Your task to perform on an android device: open chrome and create a bookmark for the current page Image 0: 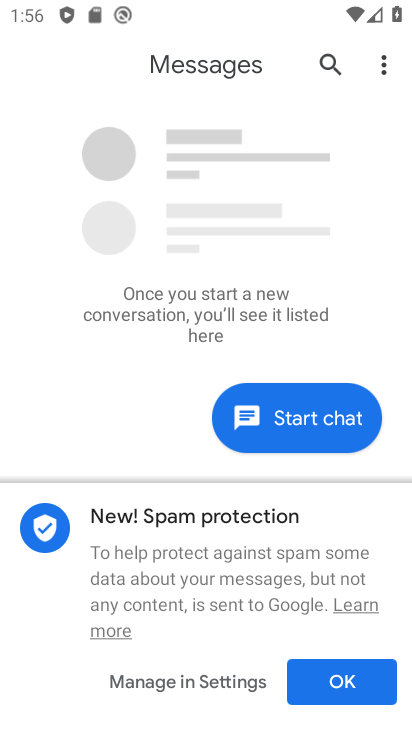
Step 0: drag from (341, 604) to (355, 186)
Your task to perform on an android device: open chrome and create a bookmark for the current page Image 1: 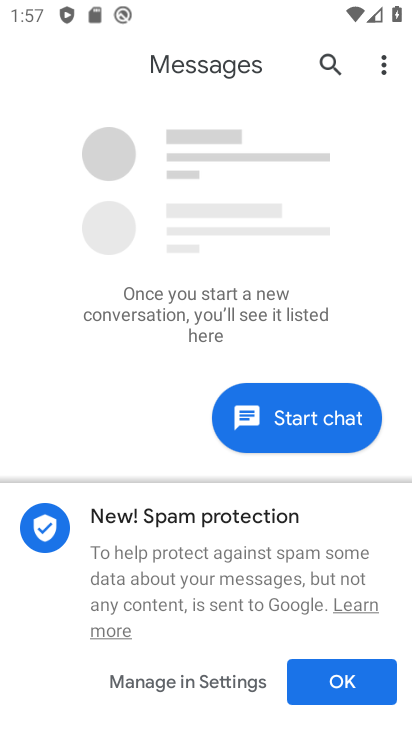
Step 1: press home button
Your task to perform on an android device: open chrome and create a bookmark for the current page Image 2: 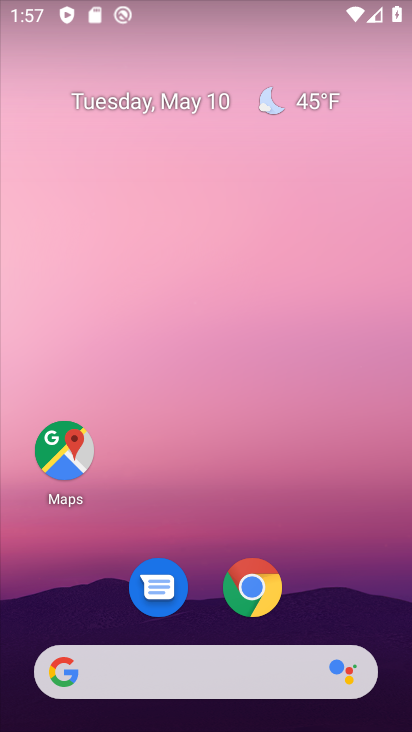
Step 2: drag from (331, 618) to (346, 129)
Your task to perform on an android device: open chrome and create a bookmark for the current page Image 3: 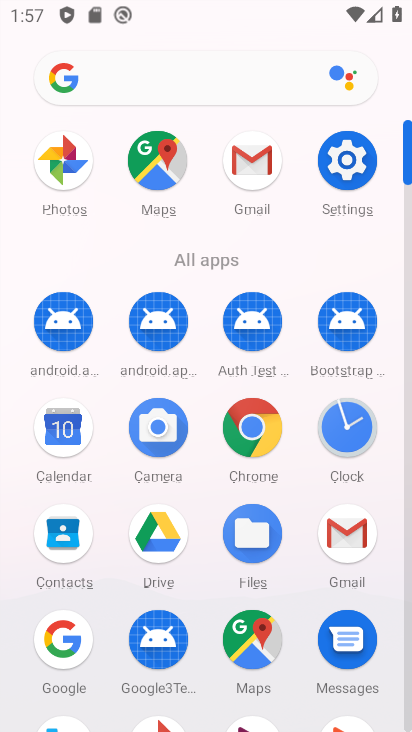
Step 3: click (264, 420)
Your task to perform on an android device: open chrome and create a bookmark for the current page Image 4: 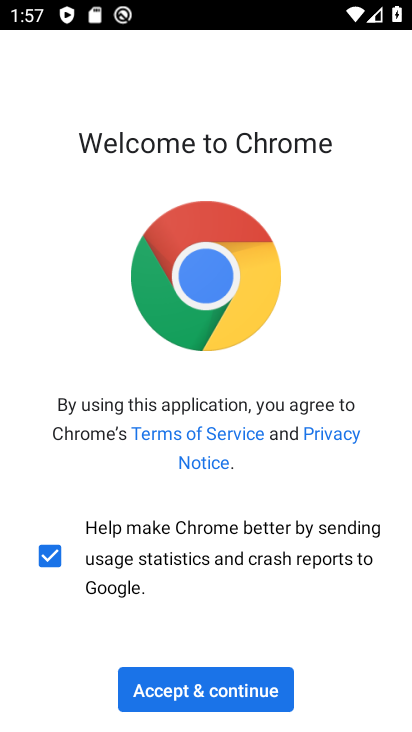
Step 4: click (232, 706)
Your task to perform on an android device: open chrome and create a bookmark for the current page Image 5: 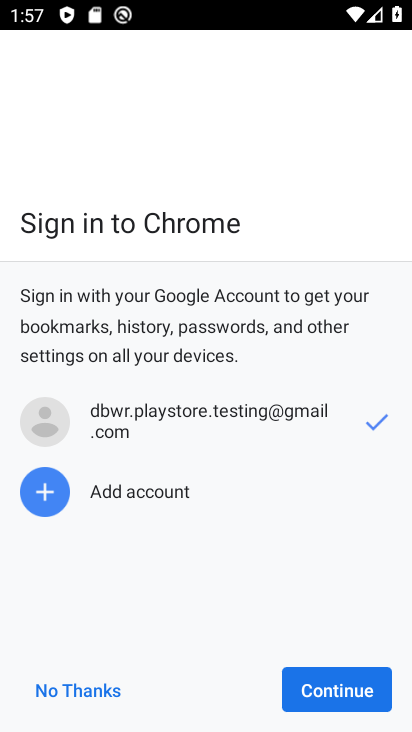
Step 5: click (366, 701)
Your task to perform on an android device: open chrome and create a bookmark for the current page Image 6: 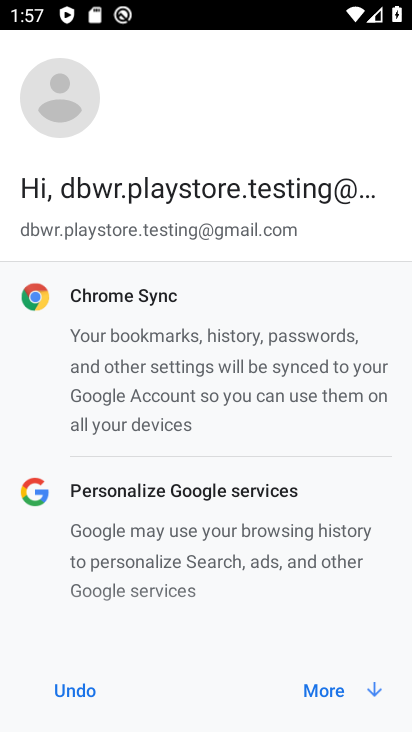
Step 6: click (341, 695)
Your task to perform on an android device: open chrome and create a bookmark for the current page Image 7: 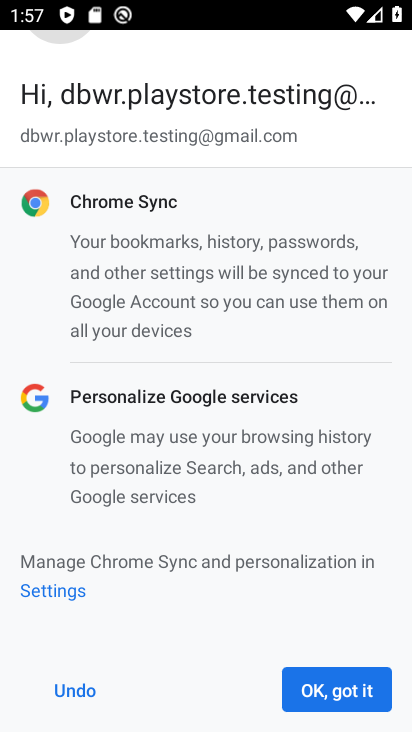
Step 7: click (340, 694)
Your task to perform on an android device: open chrome and create a bookmark for the current page Image 8: 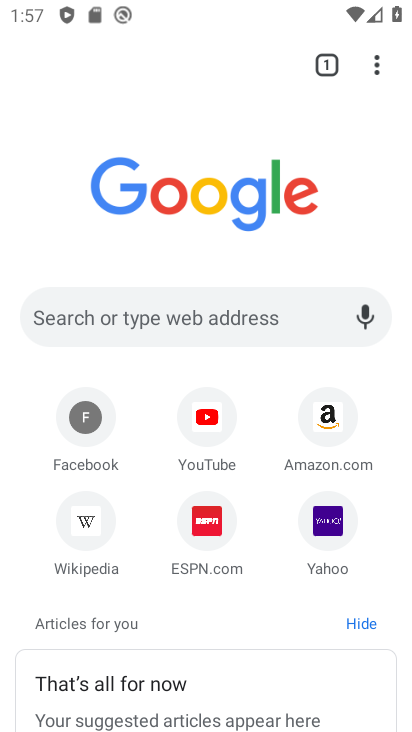
Step 8: click (223, 319)
Your task to perform on an android device: open chrome and create a bookmark for the current page Image 9: 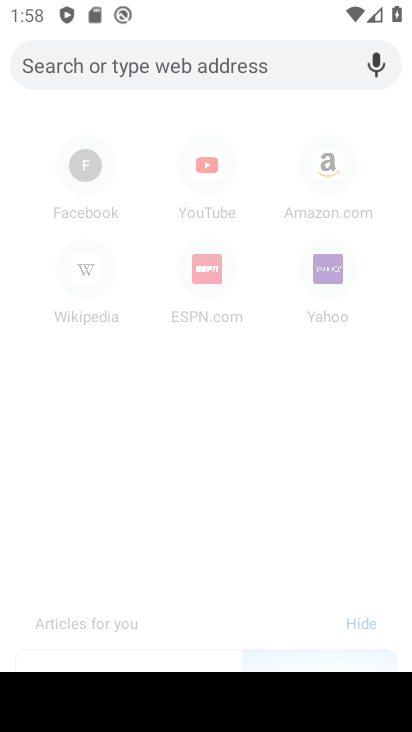
Step 9: type "one football"
Your task to perform on an android device: open chrome and create a bookmark for the current page Image 10: 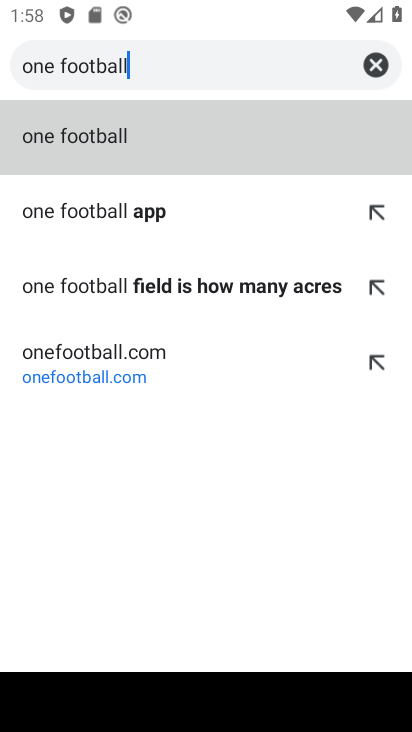
Step 10: click (256, 146)
Your task to perform on an android device: open chrome and create a bookmark for the current page Image 11: 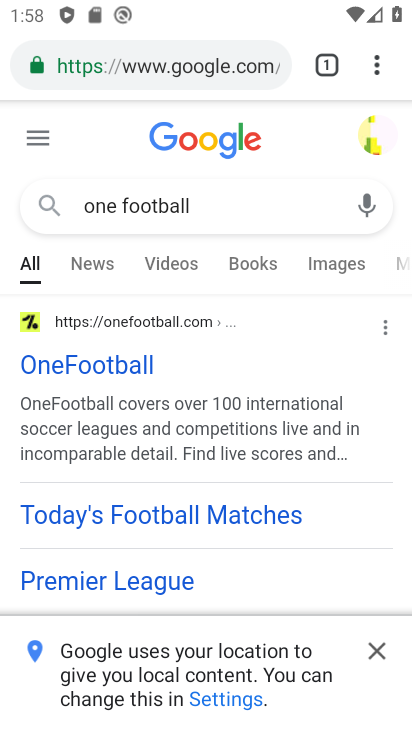
Step 11: task complete